Your task to perform on an android device: Go to Google Image 0: 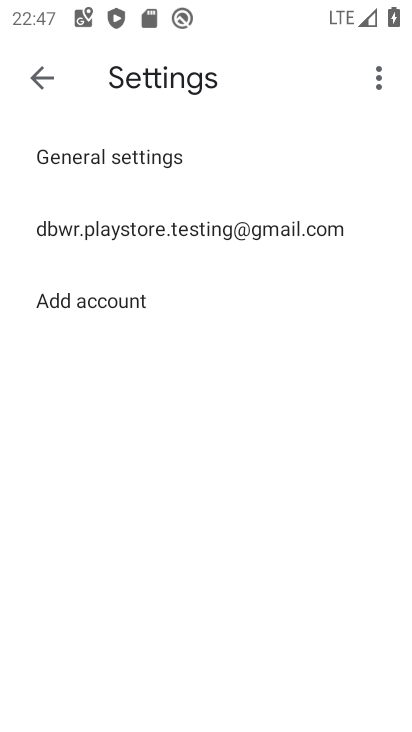
Step 0: press home button
Your task to perform on an android device: Go to Google Image 1: 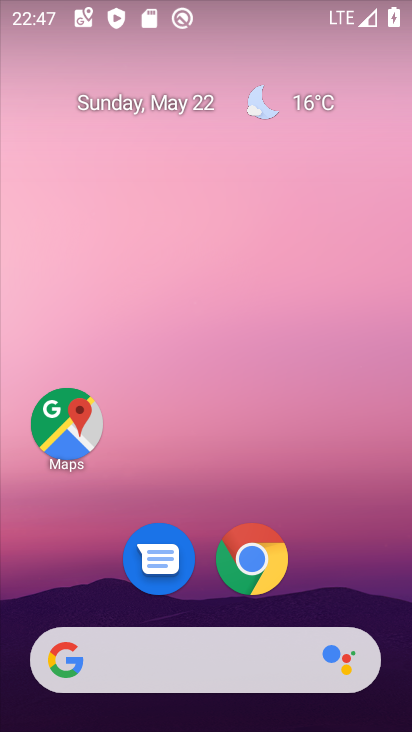
Step 1: drag from (237, 693) to (250, 157)
Your task to perform on an android device: Go to Google Image 2: 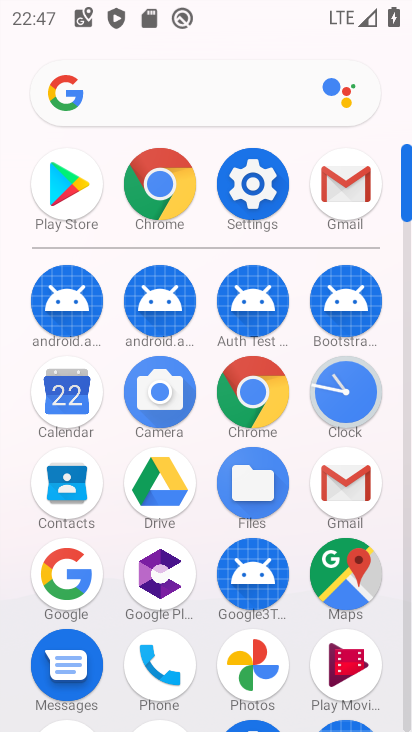
Step 2: click (71, 101)
Your task to perform on an android device: Go to Google Image 3: 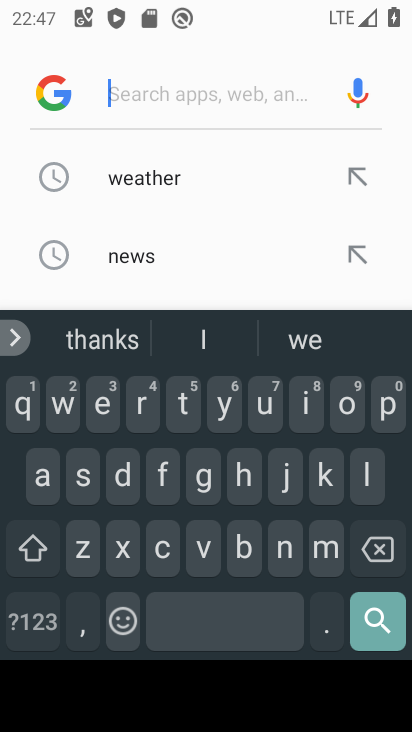
Step 3: click (51, 84)
Your task to perform on an android device: Go to Google Image 4: 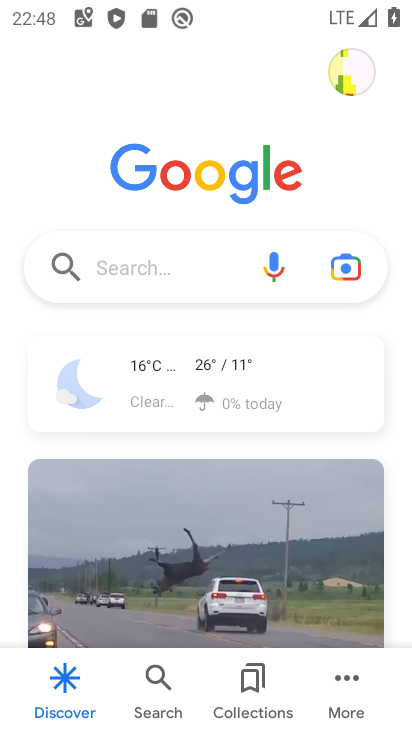
Step 4: task complete